Your task to perform on an android device: Show me the alarms in the clock app Image 0: 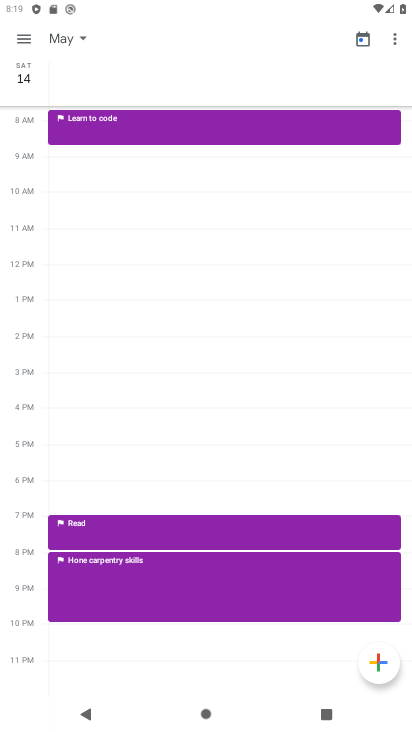
Step 0: press back button
Your task to perform on an android device: Show me the alarms in the clock app Image 1: 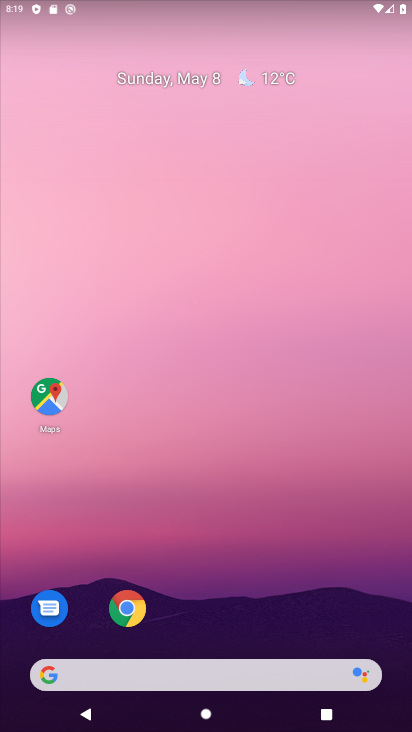
Step 1: drag from (217, 632) to (233, 27)
Your task to perform on an android device: Show me the alarms in the clock app Image 2: 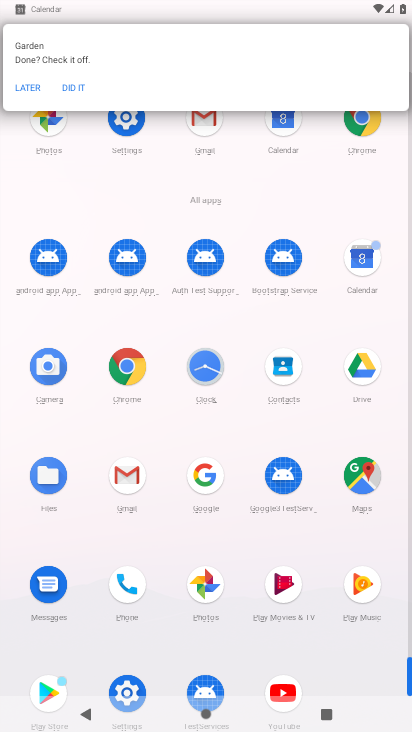
Step 2: click (66, 83)
Your task to perform on an android device: Show me the alarms in the clock app Image 3: 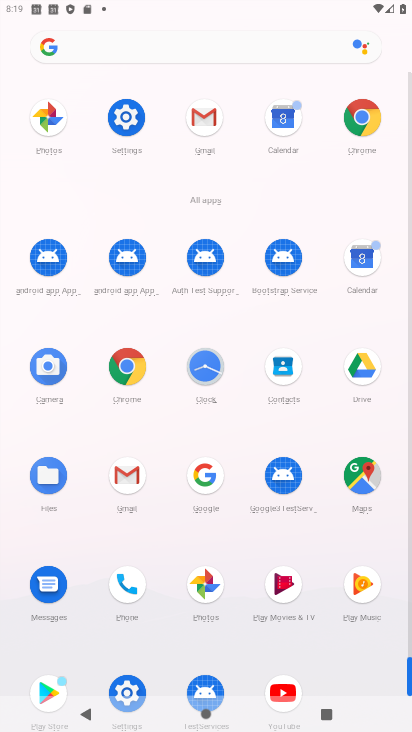
Step 3: click (204, 365)
Your task to perform on an android device: Show me the alarms in the clock app Image 4: 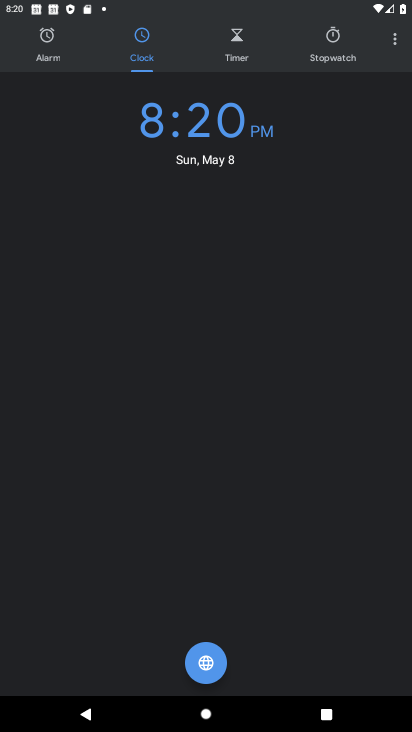
Step 4: click (60, 39)
Your task to perform on an android device: Show me the alarms in the clock app Image 5: 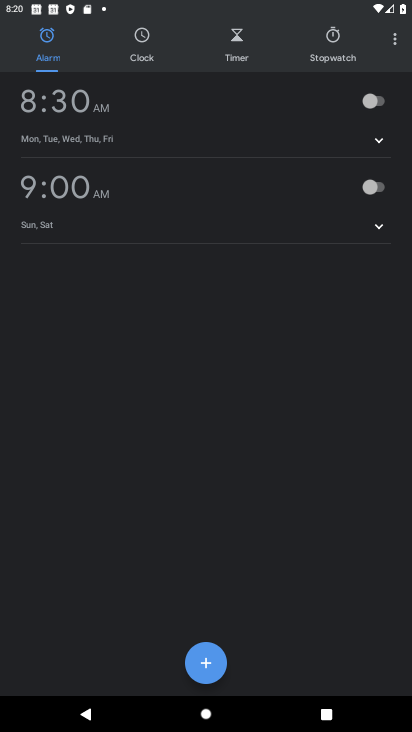
Step 5: task complete